Your task to perform on an android device: When is my next meeting? Image 0: 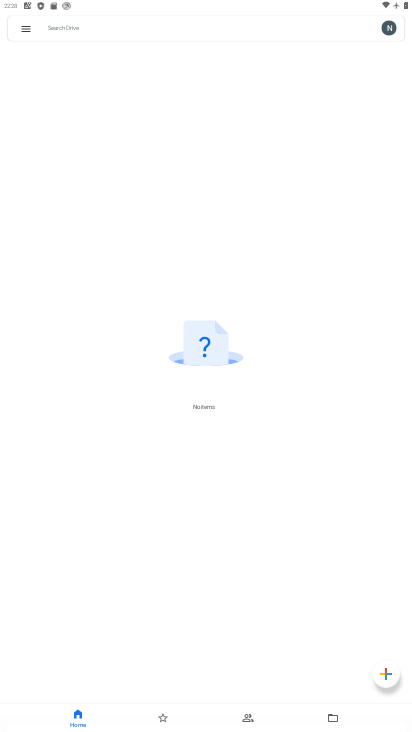
Step 0: press home button
Your task to perform on an android device: When is my next meeting? Image 1: 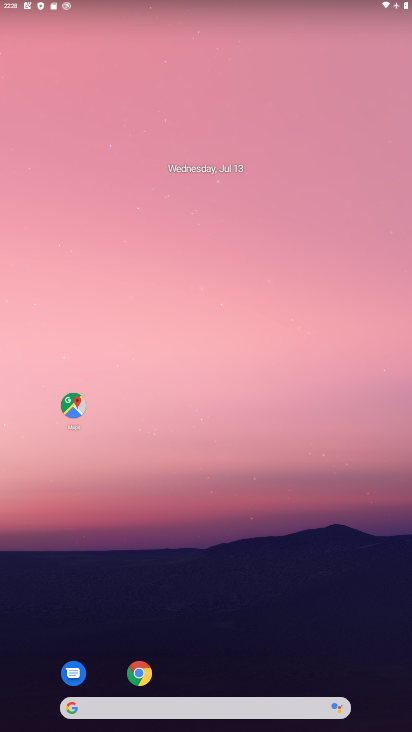
Step 1: drag from (222, 667) to (222, 303)
Your task to perform on an android device: When is my next meeting? Image 2: 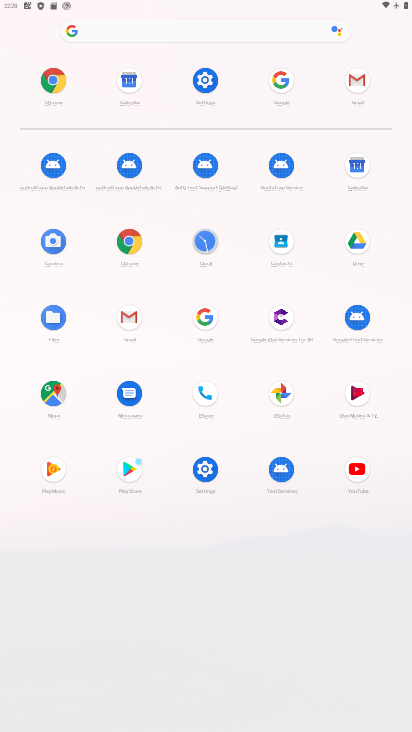
Step 2: click (349, 177)
Your task to perform on an android device: When is my next meeting? Image 3: 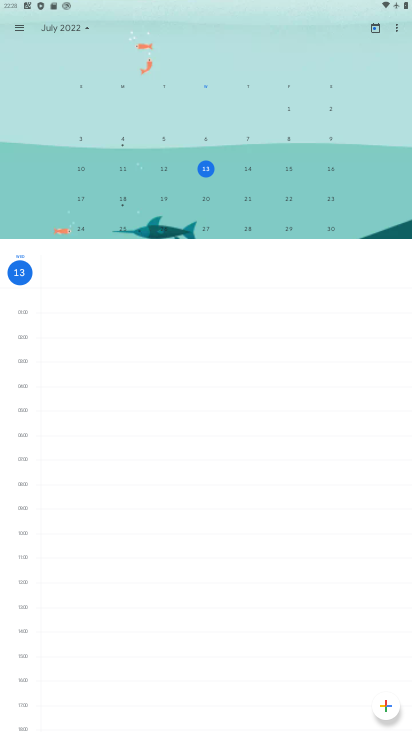
Step 3: task complete